Your task to perform on an android device: clear all cookies in the chrome app Image 0: 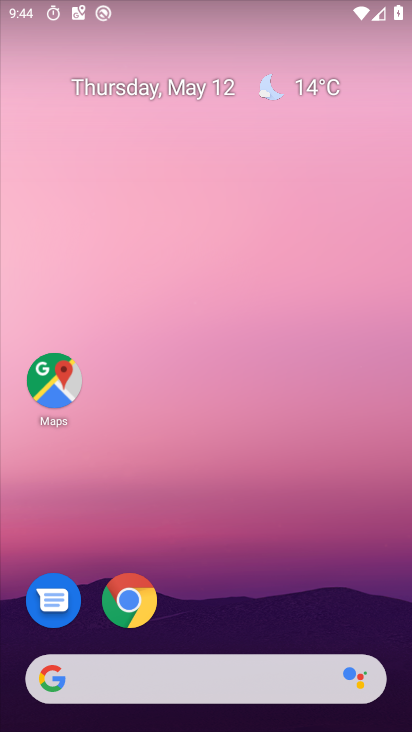
Step 0: drag from (321, 625) to (198, 15)
Your task to perform on an android device: clear all cookies in the chrome app Image 1: 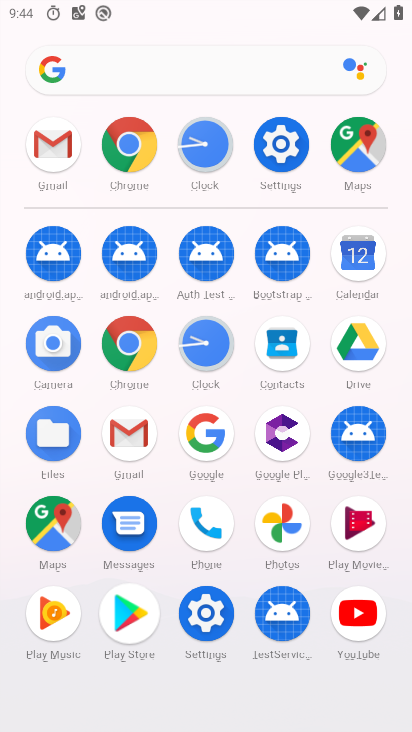
Step 1: click (137, 143)
Your task to perform on an android device: clear all cookies in the chrome app Image 2: 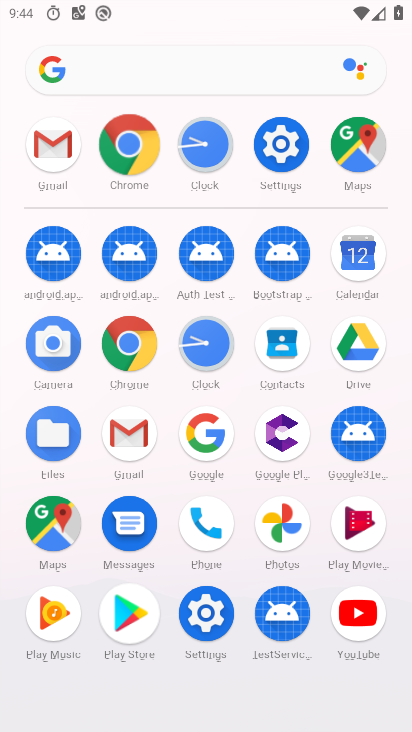
Step 2: click (138, 142)
Your task to perform on an android device: clear all cookies in the chrome app Image 3: 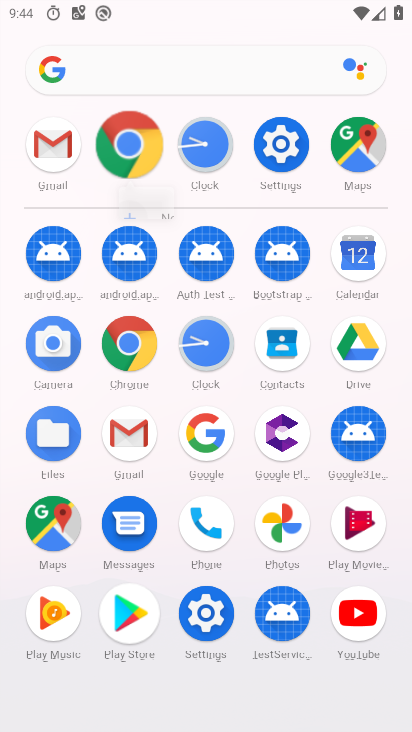
Step 3: click (138, 141)
Your task to perform on an android device: clear all cookies in the chrome app Image 4: 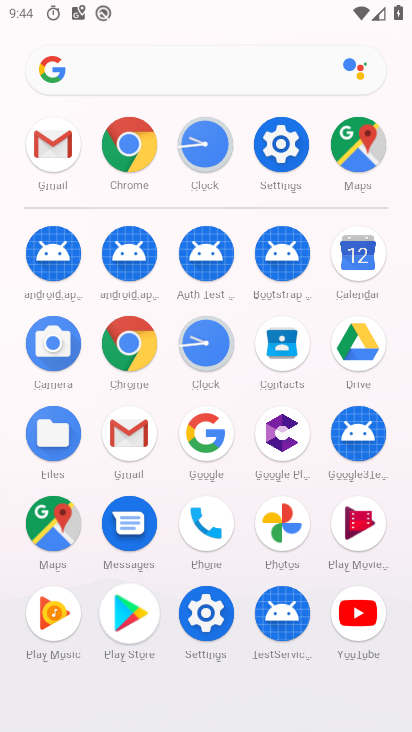
Step 4: click (138, 141)
Your task to perform on an android device: clear all cookies in the chrome app Image 5: 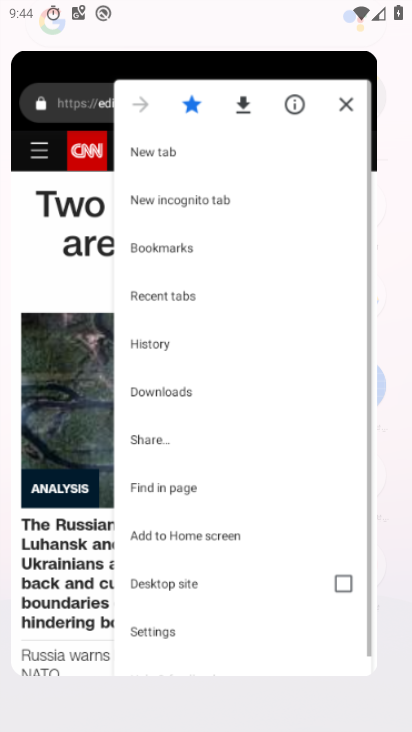
Step 5: click (139, 140)
Your task to perform on an android device: clear all cookies in the chrome app Image 6: 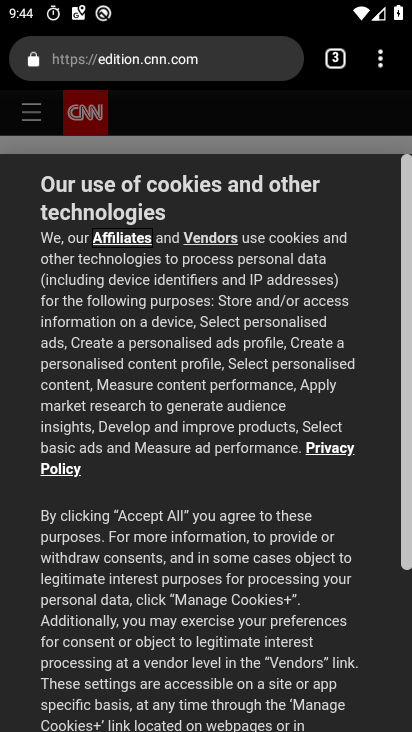
Step 6: click (372, 56)
Your task to perform on an android device: clear all cookies in the chrome app Image 7: 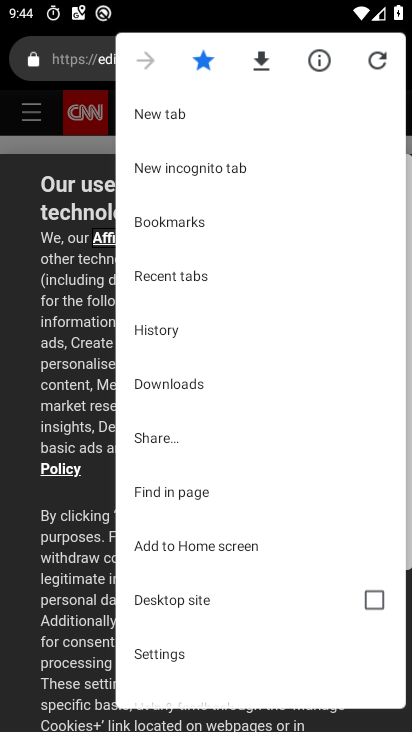
Step 7: drag from (185, 534) to (130, 28)
Your task to perform on an android device: clear all cookies in the chrome app Image 8: 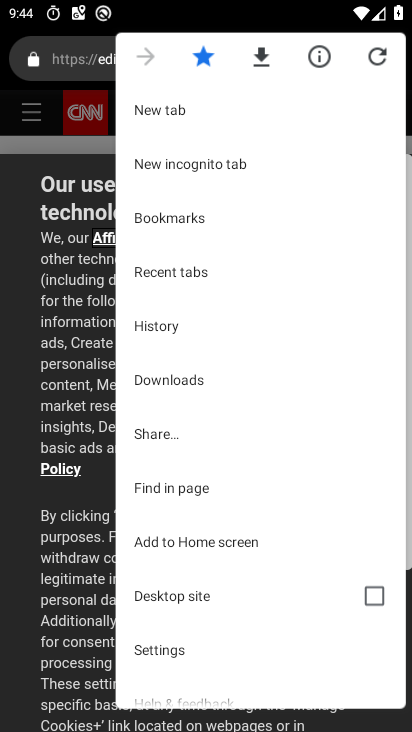
Step 8: click (150, 648)
Your task to perform on an android device: clear all cookies in the chrome app Image 9: 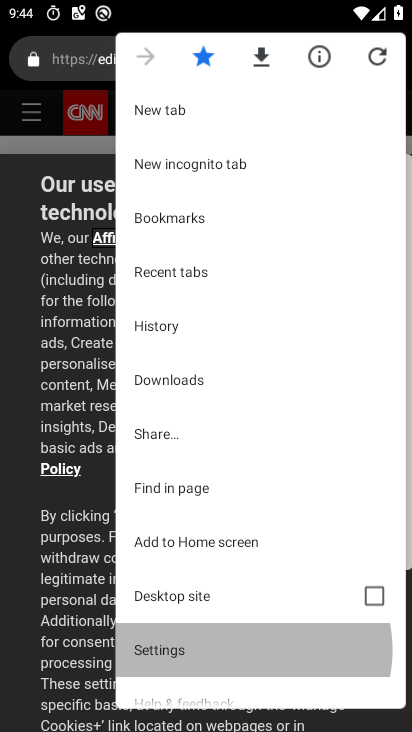
Step 9: click (150, 649)
Your task to perform on an android device: clear all cookies in the chrome app Image 10: 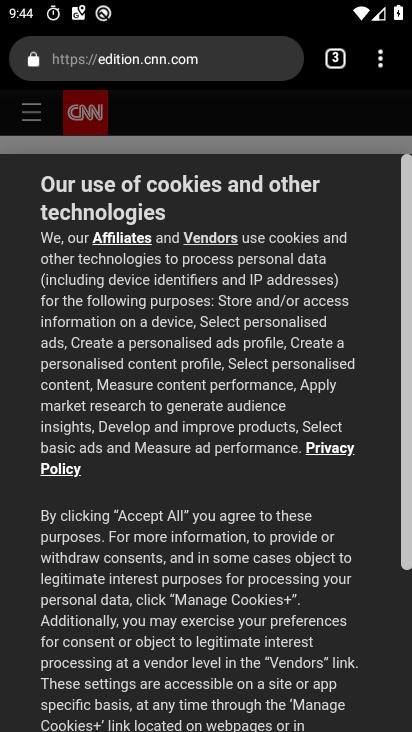
Step 10: click (150, 649)
Your task to perform on an android device: clear all cookies in the chrome app Image 11: 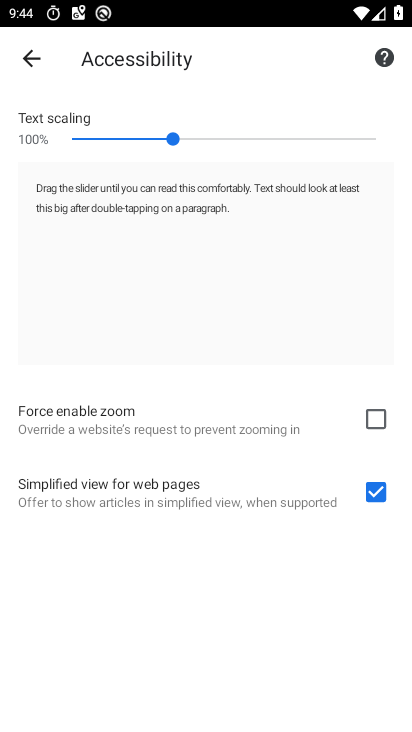
Step 11: click (30, 56)
Your task to perform on an android device: clear all cookies in the chrome app Image 12: 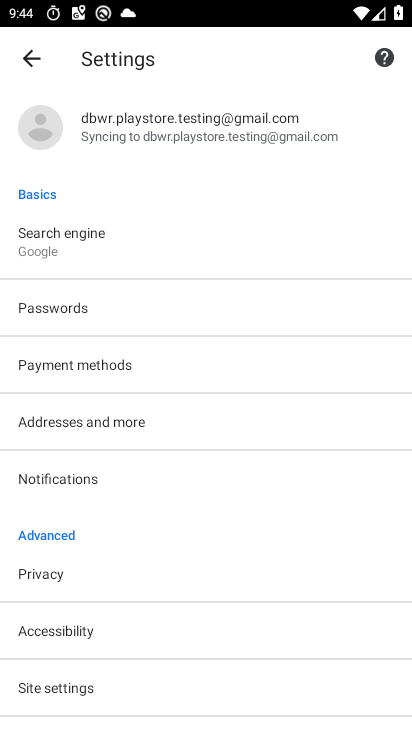
Step 12: drag from (77, 581) to (43, 94)
Your task to perform on an android device: clear all cookies in the chrome app Image 13: 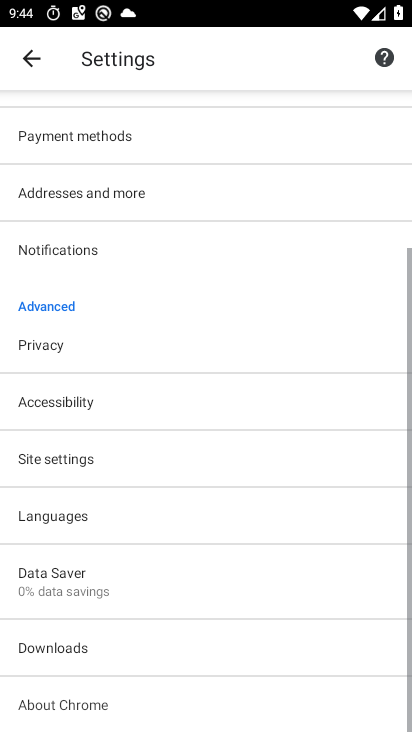
Step 13: drag from (190, 476) to (243, 127)
Your task to perform on an android device: clear all cookies in the chrome app Image 14: 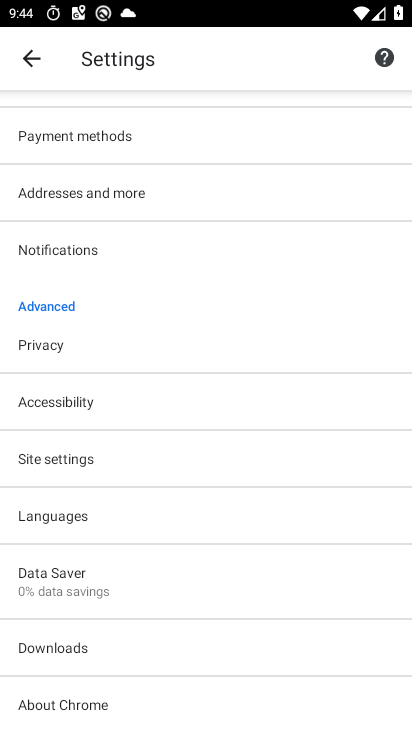
Step 14: click (43, 460)
Your task to perform on an android device: clear all cookies in the chrome app Image 15: 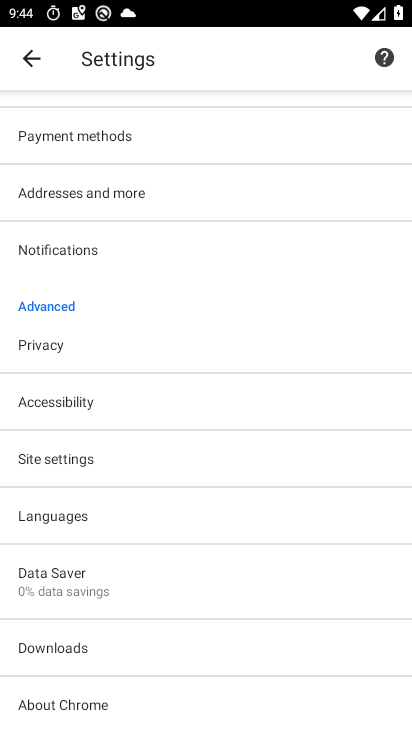
Step 15: click (44, 460)
Your task to perform on an android device: clear all cookies in the chrome app Image 16: 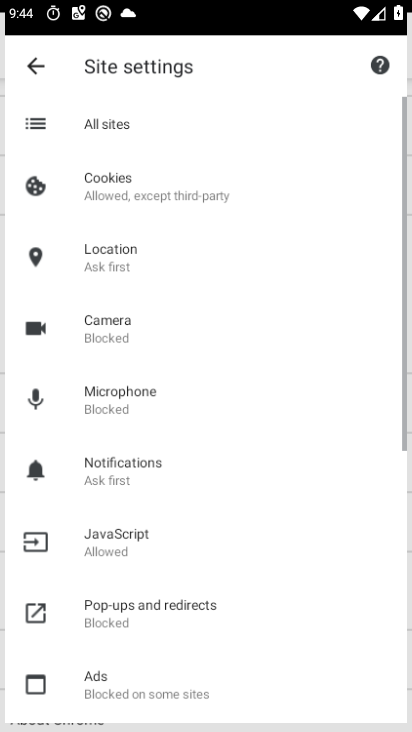
Step 16: click (45, 461)
Your task to perform on an android device: clear all cookies in the chrome app Image 17: 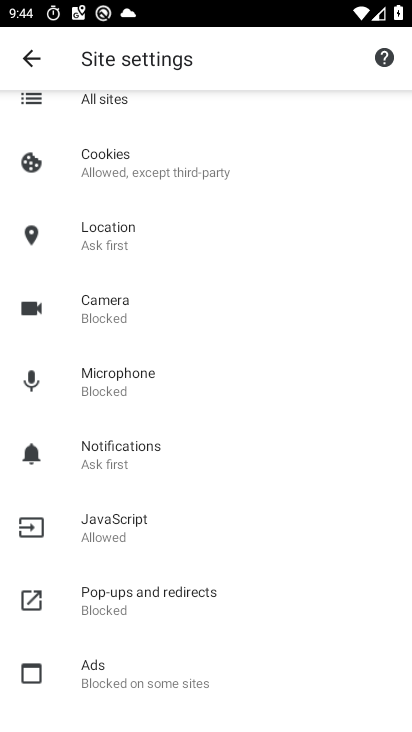
Step 17: click (122, 161)
Your task to perform on an android device: clear all cookies in the chrome app Image 18: 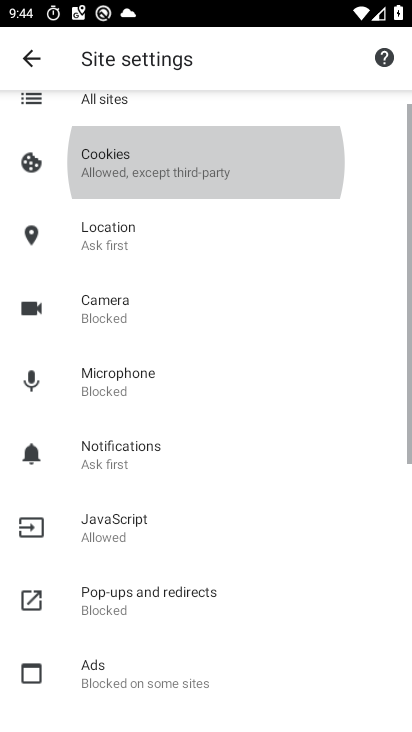
Step 18: click (121, 161)
Your task to perform on an android device: clear all cookies in the chrome app Image 19: 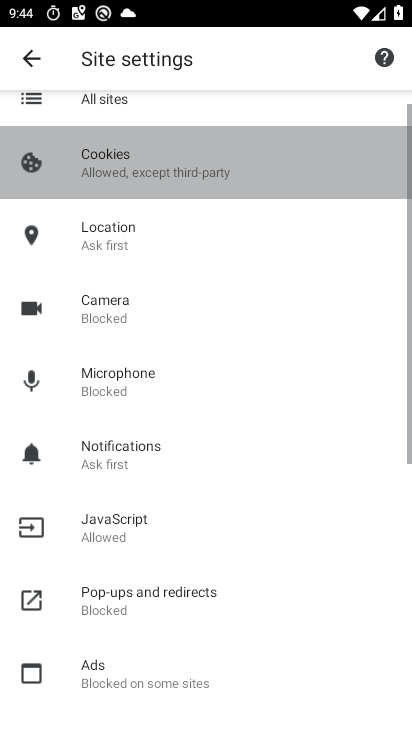
Step 19: click (120, 164)
Your task to perform on an android device: clear all cookies in the chrome app Image 20: 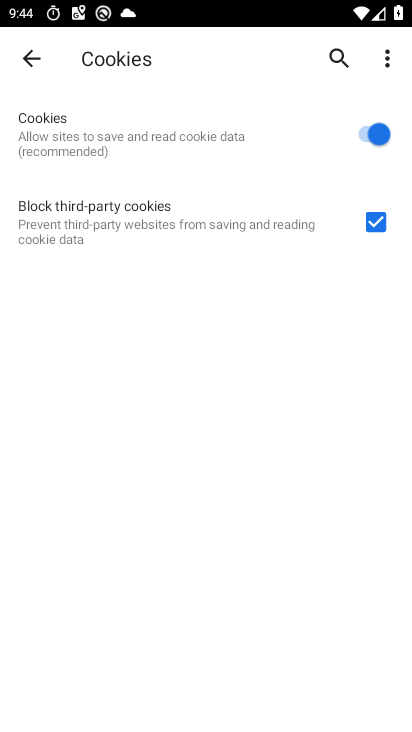
Step 20: click (120, 164)
Your task to perform on an android device: clear all cookies in the chrome app Image 21: 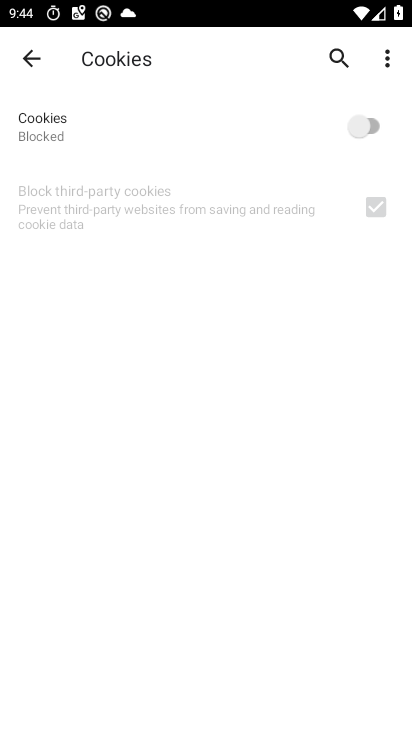
Step 21: click (359, 132)
Your task to perform on an android device: clear all cookies in the chrome app Image 22: 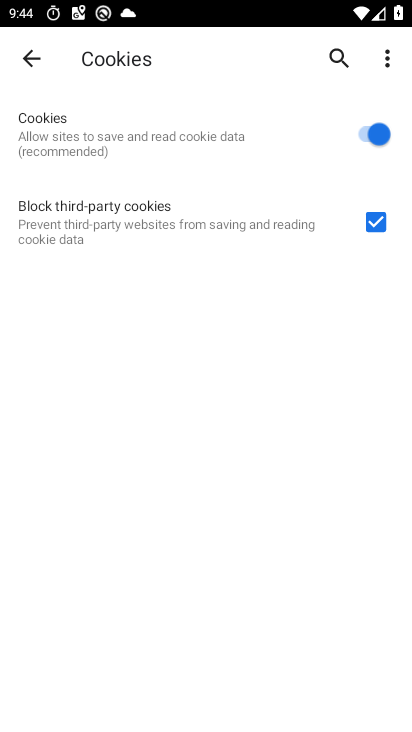
Step 22: task complete